Your task to perform on an android device: open chrome and create a bookmark for the current page Image 0: 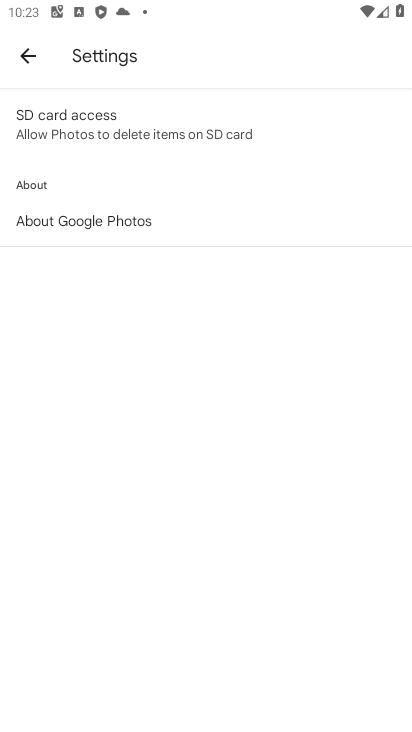
Step 0: press home button
Your task to perform on an android device: open chrome and create a bookmark for the current page Image 1: 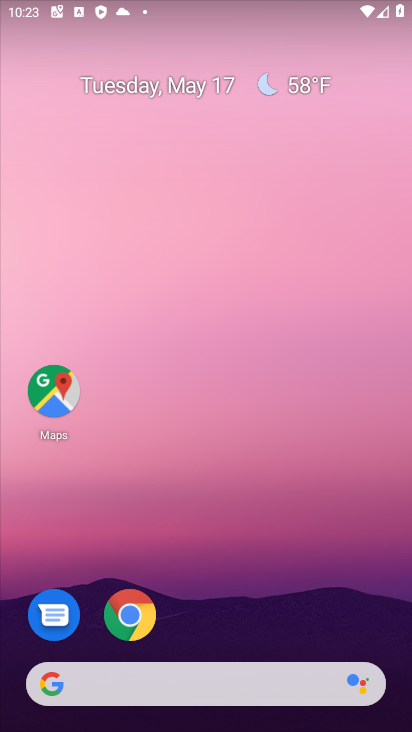
Step 1: click (131, 616)
Your task to perform on an android device: open chrome and create a bookmark for the current page Image 2: 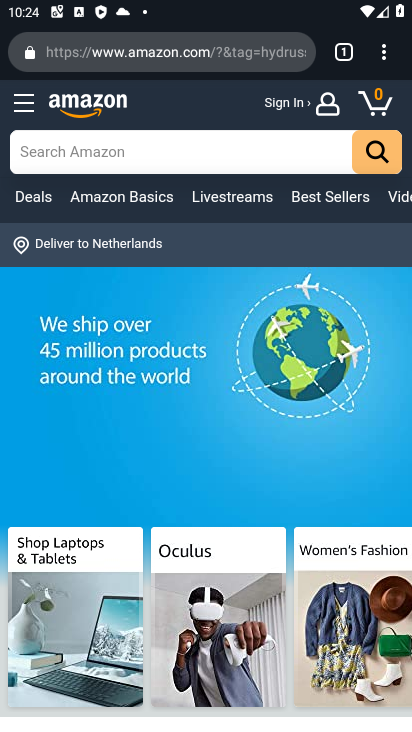
Step 2: click (384, 54)
Your task to perform on an android device: open chrome and create a bookmark for the current page Image 3: 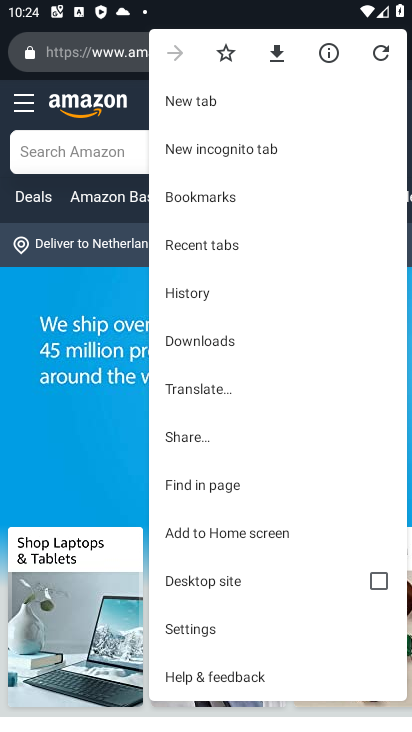
Step 3: click (224, 51)
Your task to perform on an android device: open chrome and create a bookmark for the current page Image 4: 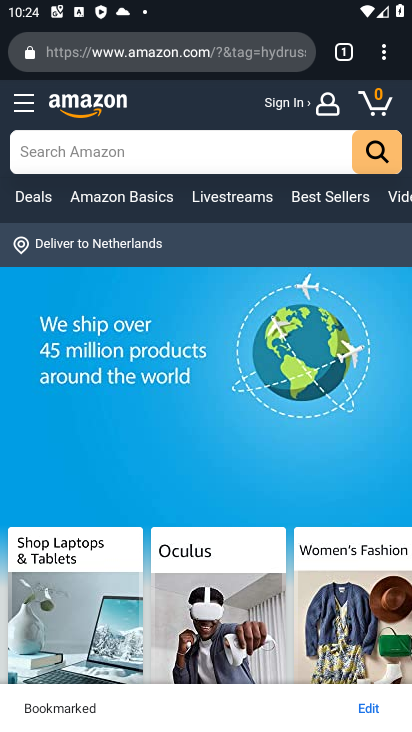
Step 4: task complete